Your task to perform on an android device: delete the emails in spam in the gmail app Image 0: 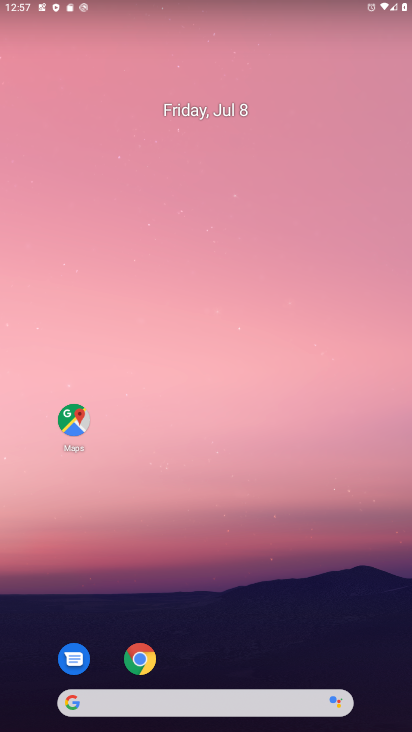
Step 0: drag from (252, 593) to (186, 151)
Your task to perform on an android device: delete the emails in spam in the gmail app Image 1: 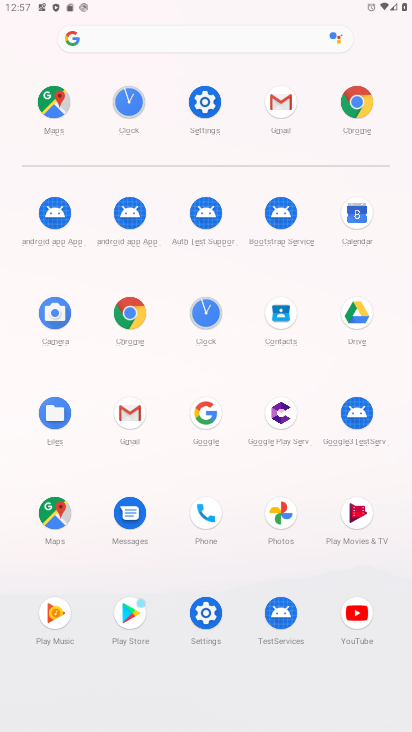
Step 1: click (282, 102)
Your task to perform on an android device: delete the emails in spam in the gmail app Image 2: 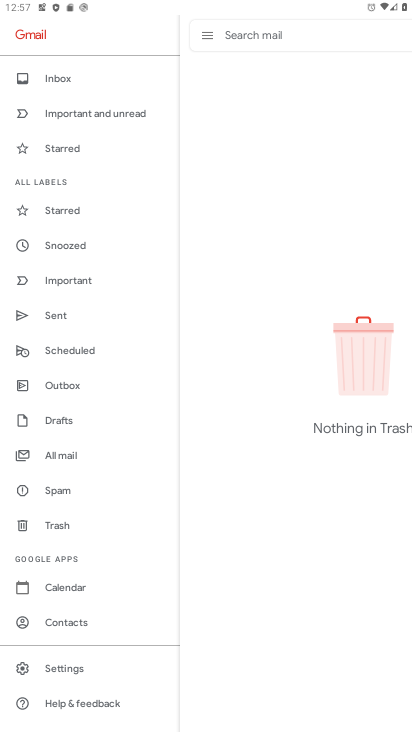
Step 2: click (52, 488)
Your task to perform on an android device: delete the emails in spam in the gmail app Image 3: 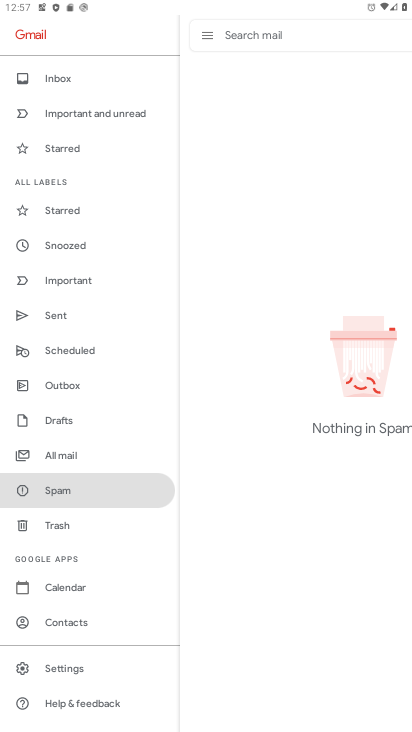
Step 3: task complete